Your task to perform on an android device: toggle location history Image 0: 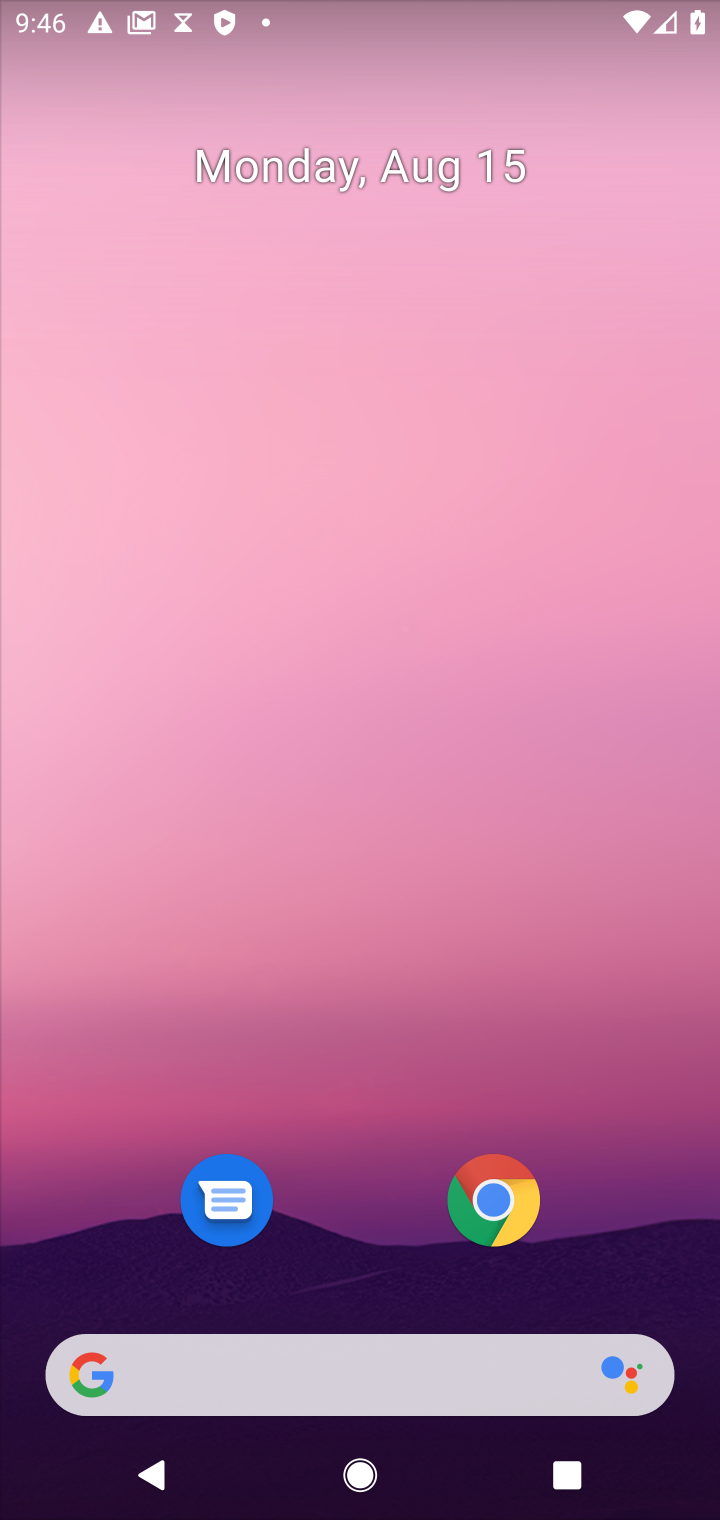
Step 0: drag from (350, 1022) to (307, 333)
Your task to perform on an android device: toggle location history Image 1: 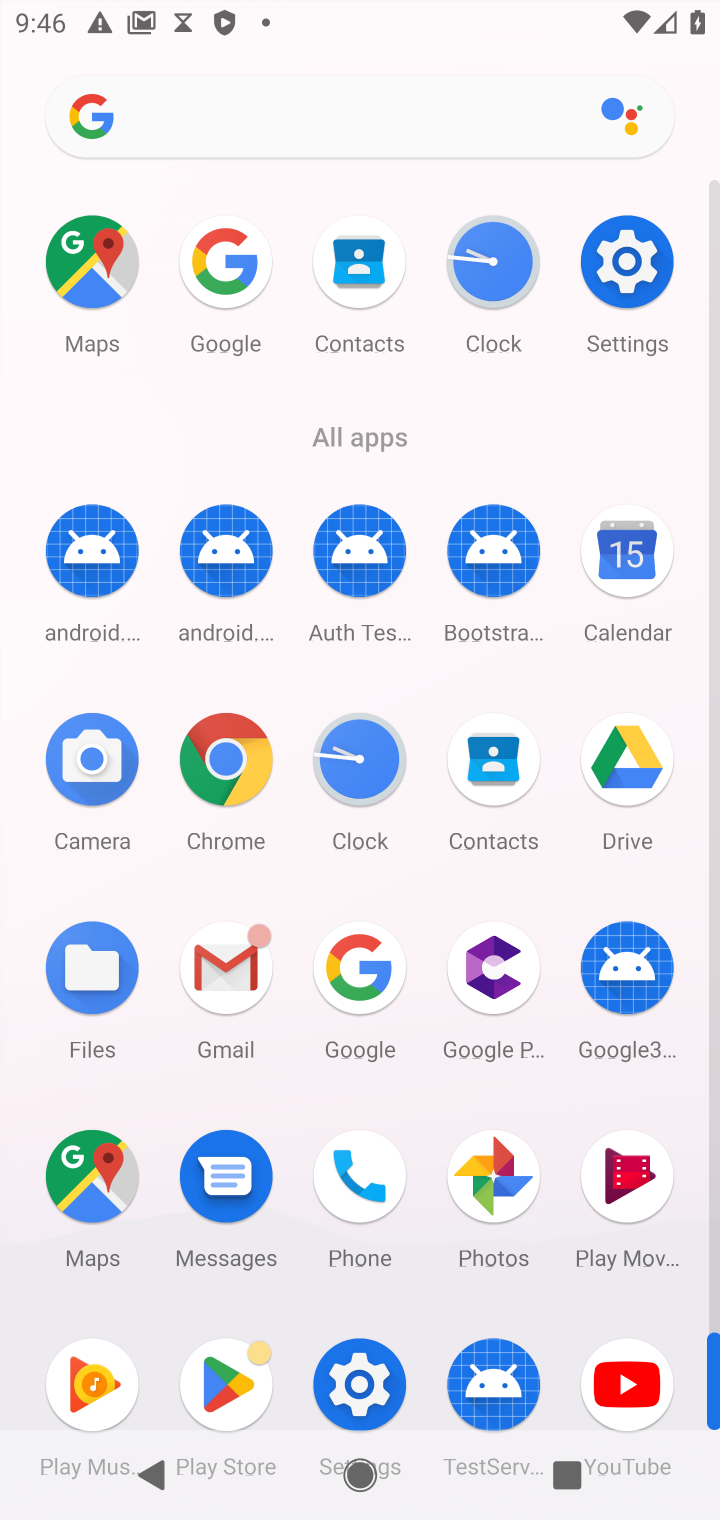
Step 1: click (628, 277)
Your task to perform on an android device: toggle location history Image 2: 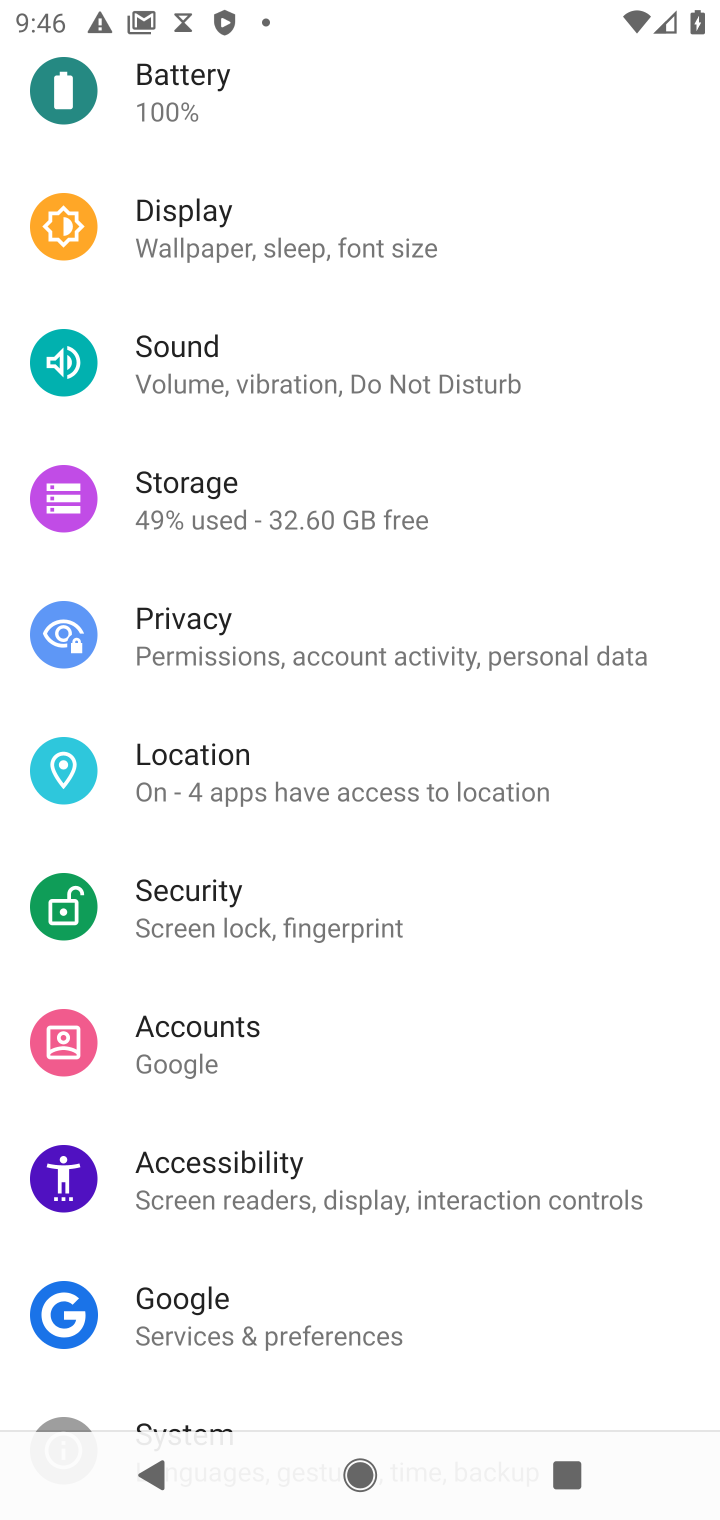
Step 2: click (266, 768)
Your task to perform on an android device: toggle location history Image 3: 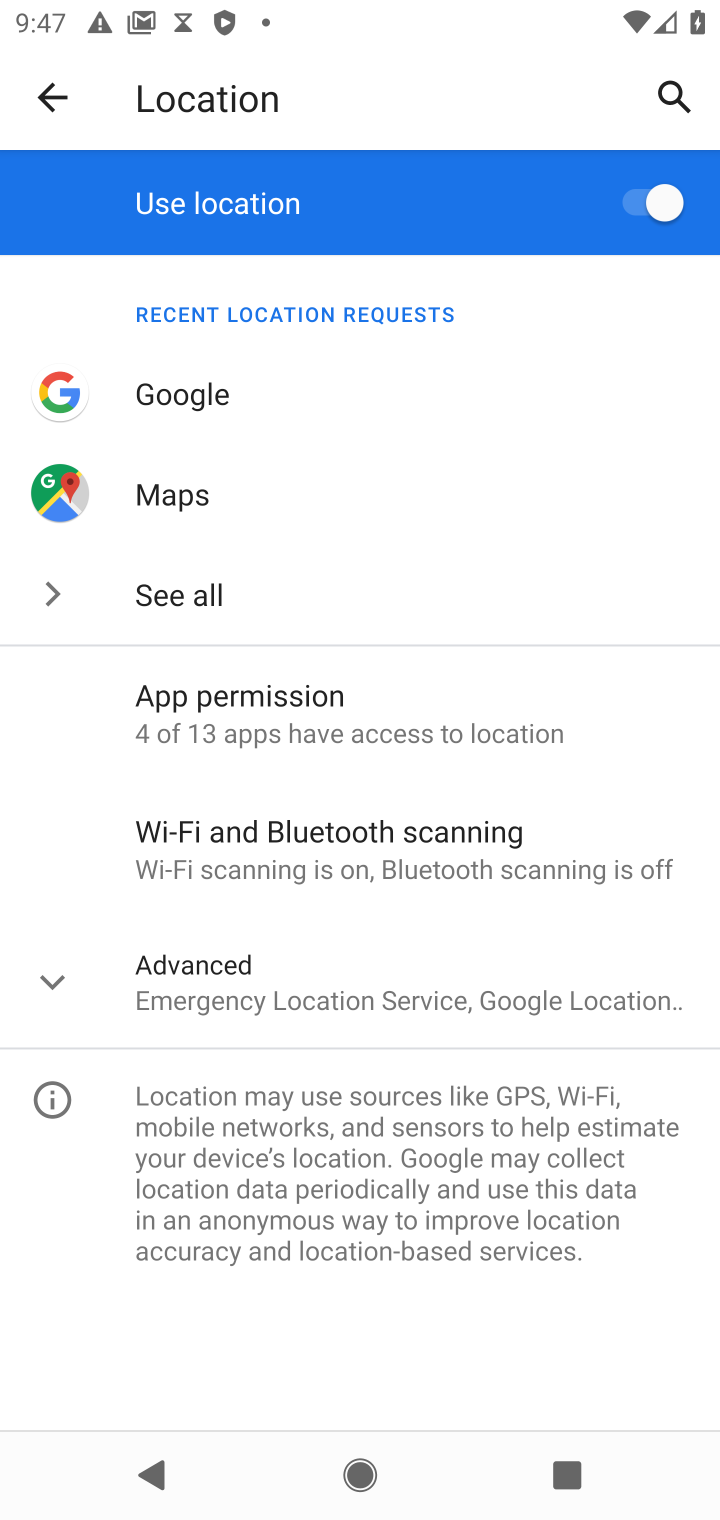
Step 3: click (334, 989)
Your task to perform on an android device: toggle location history Image 4: 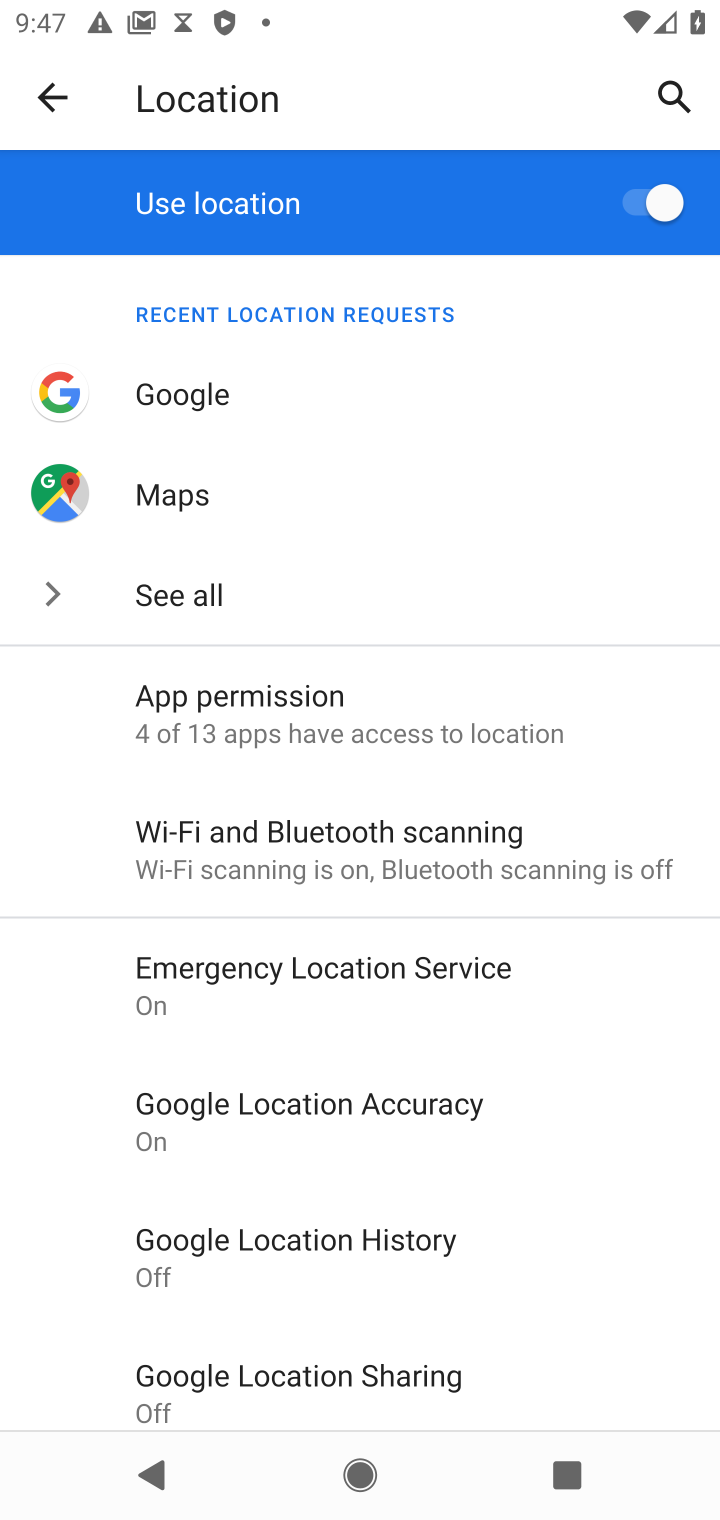
Step 4: click (360, 1242)
Your task to perform on an android device: toggle location history Image 5: 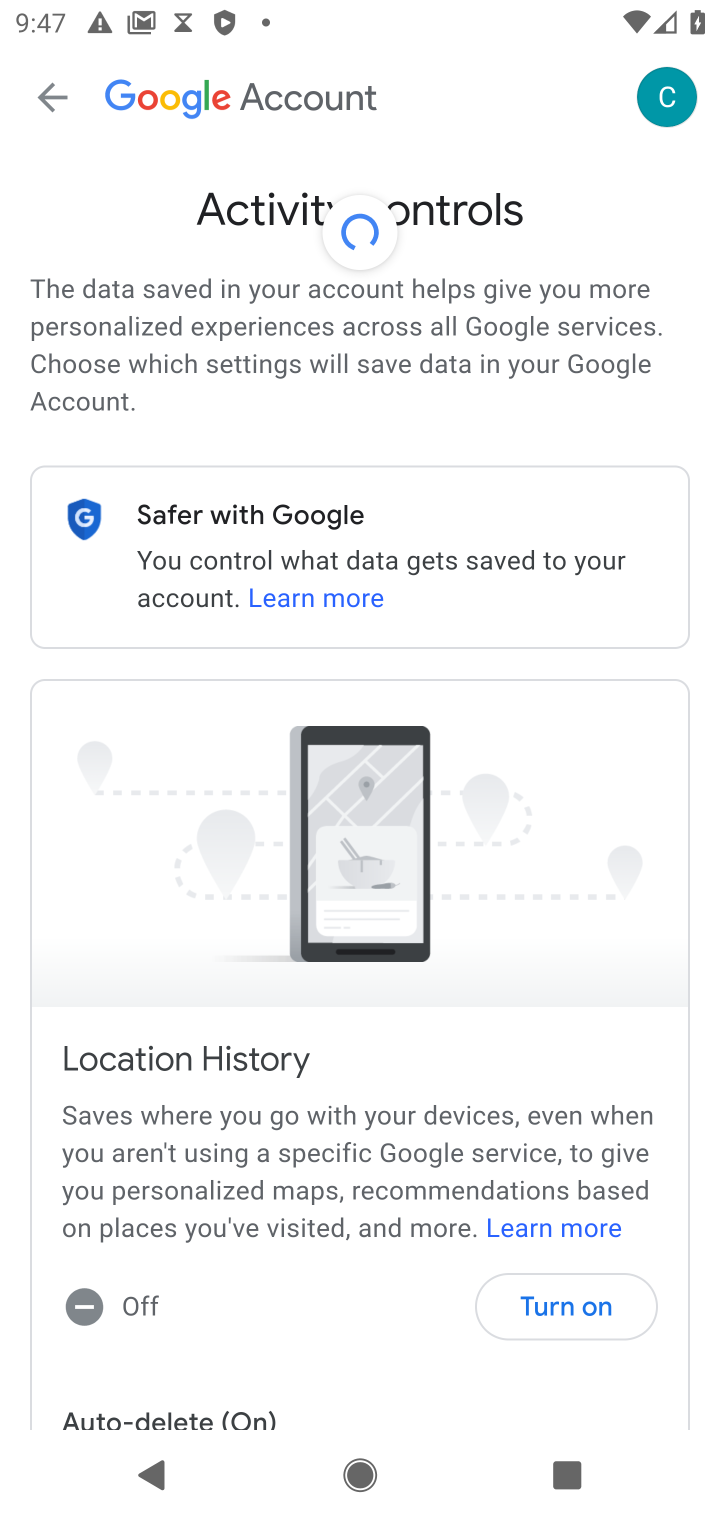
Step 5: click (564, 1300)
Your task to perform on an android device: toggle location history Image 6: 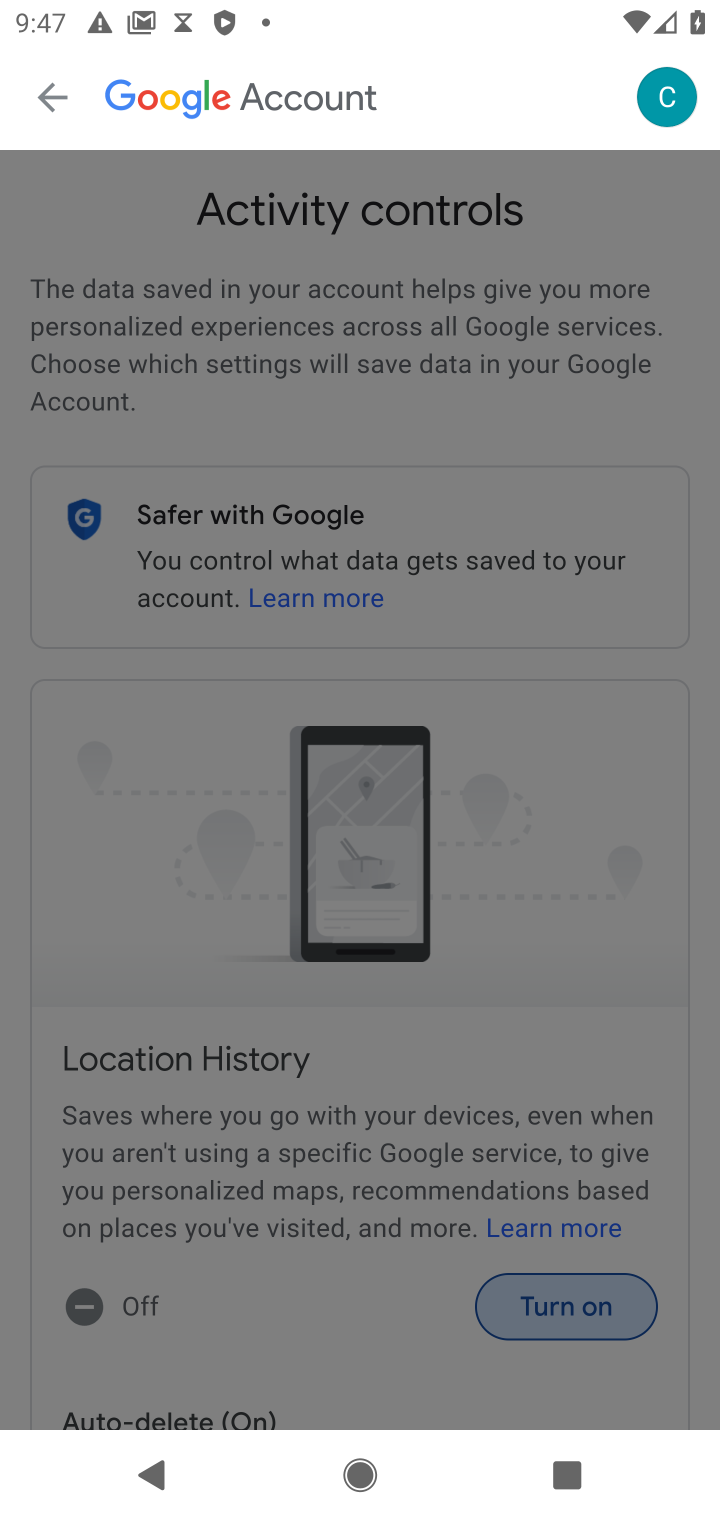
Step 6: click (581, 1322)
Your task to perform on an android device: toggle location history Image 7: 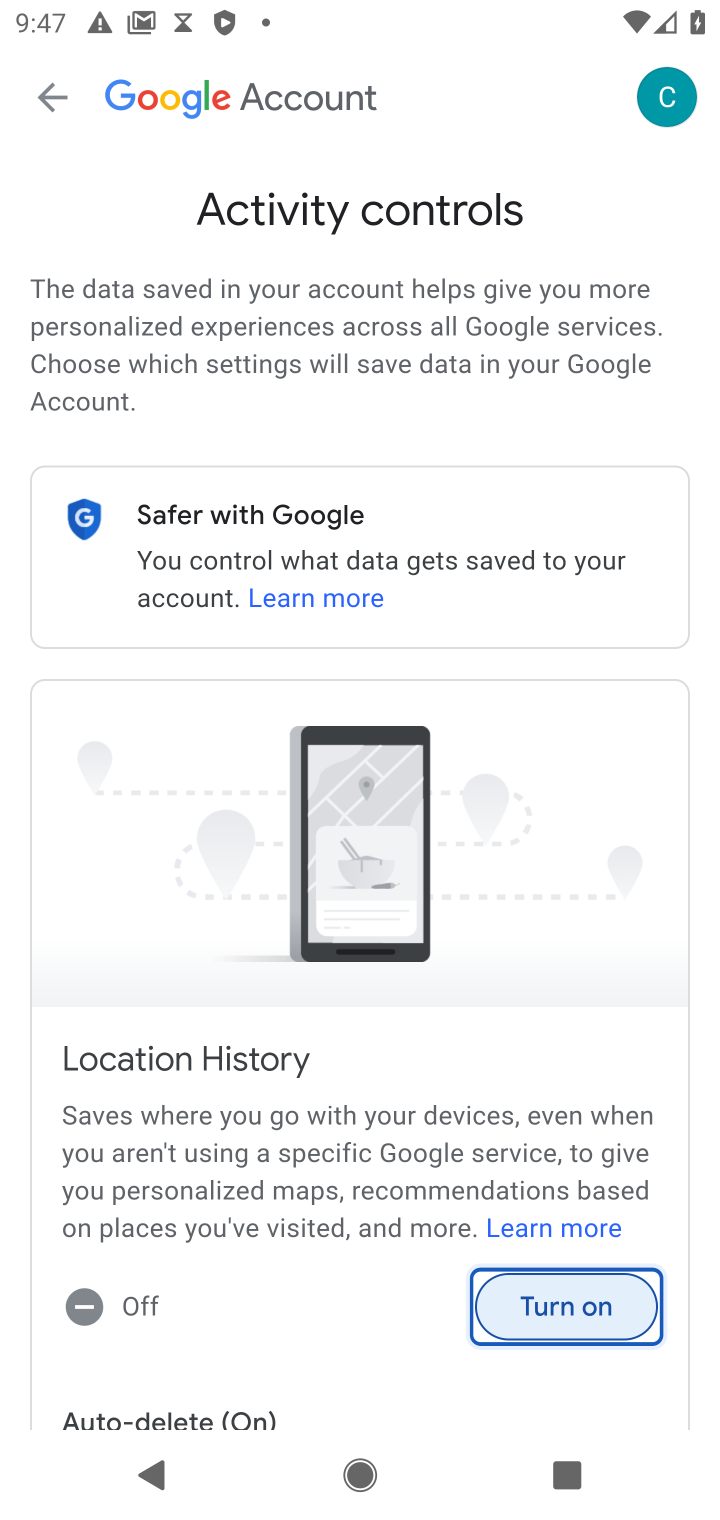
Step 7: task complete